Your task to perform on an android device: install app "Venmo" Image 0: 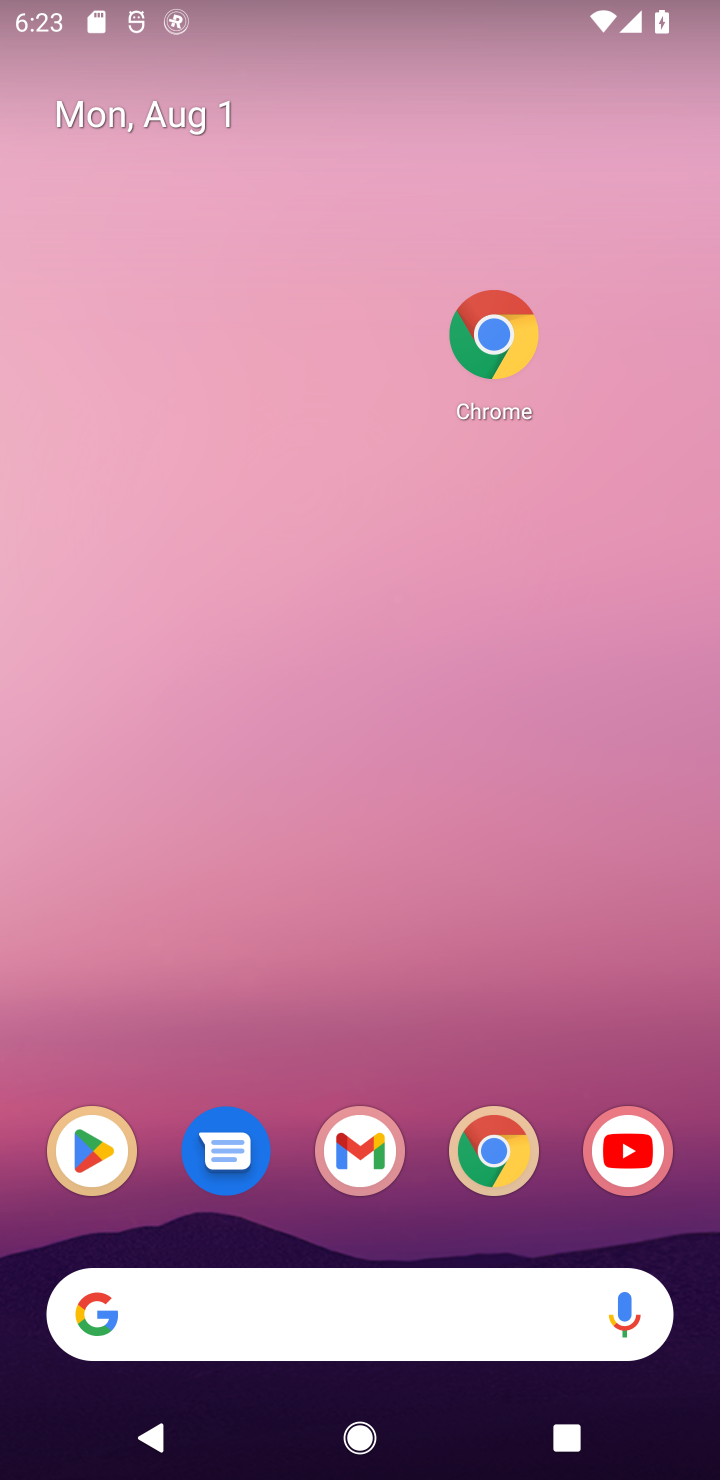
Step 0: click (96, 1152)
Your task to perform on an android device: install app "Venmo" Image 1: 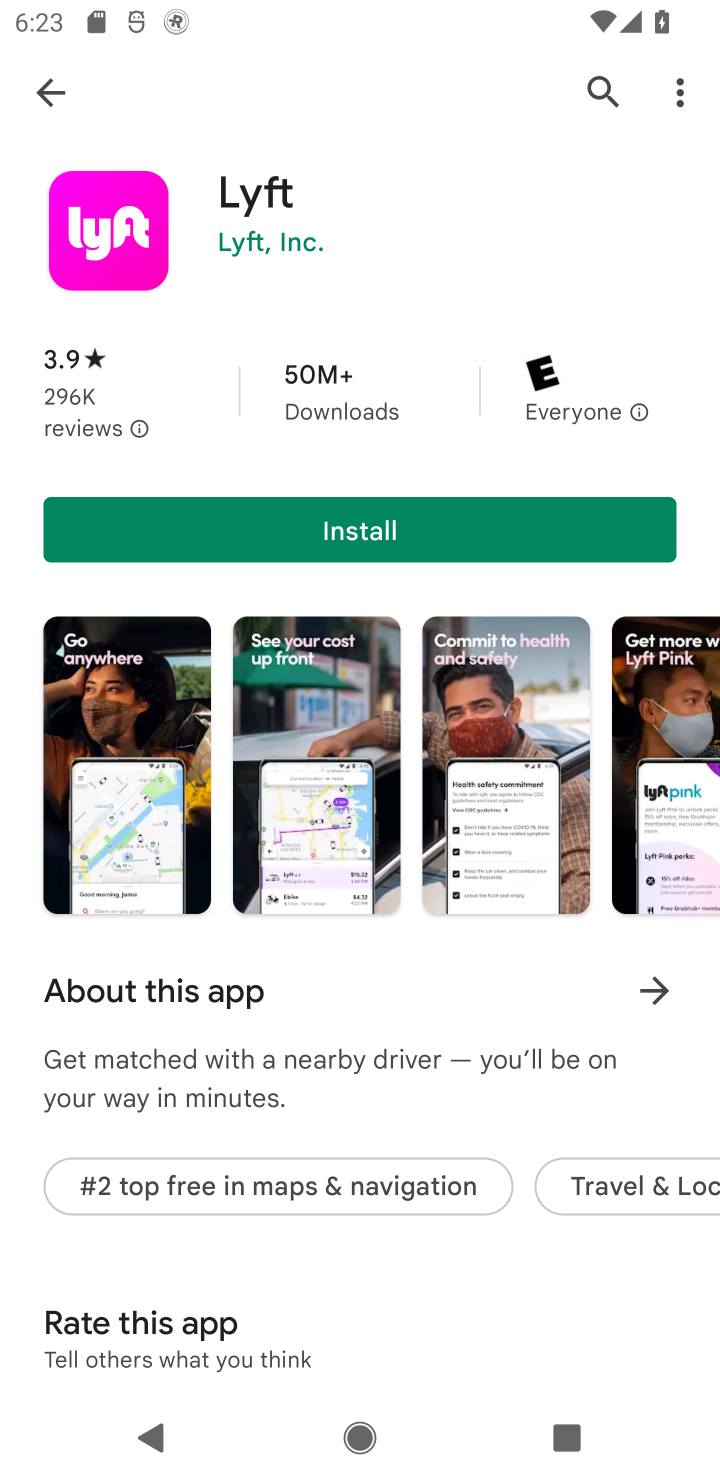
Step 1: click (613, 78)
Your task to perform on an android device: install app "Venmo" Image 2: 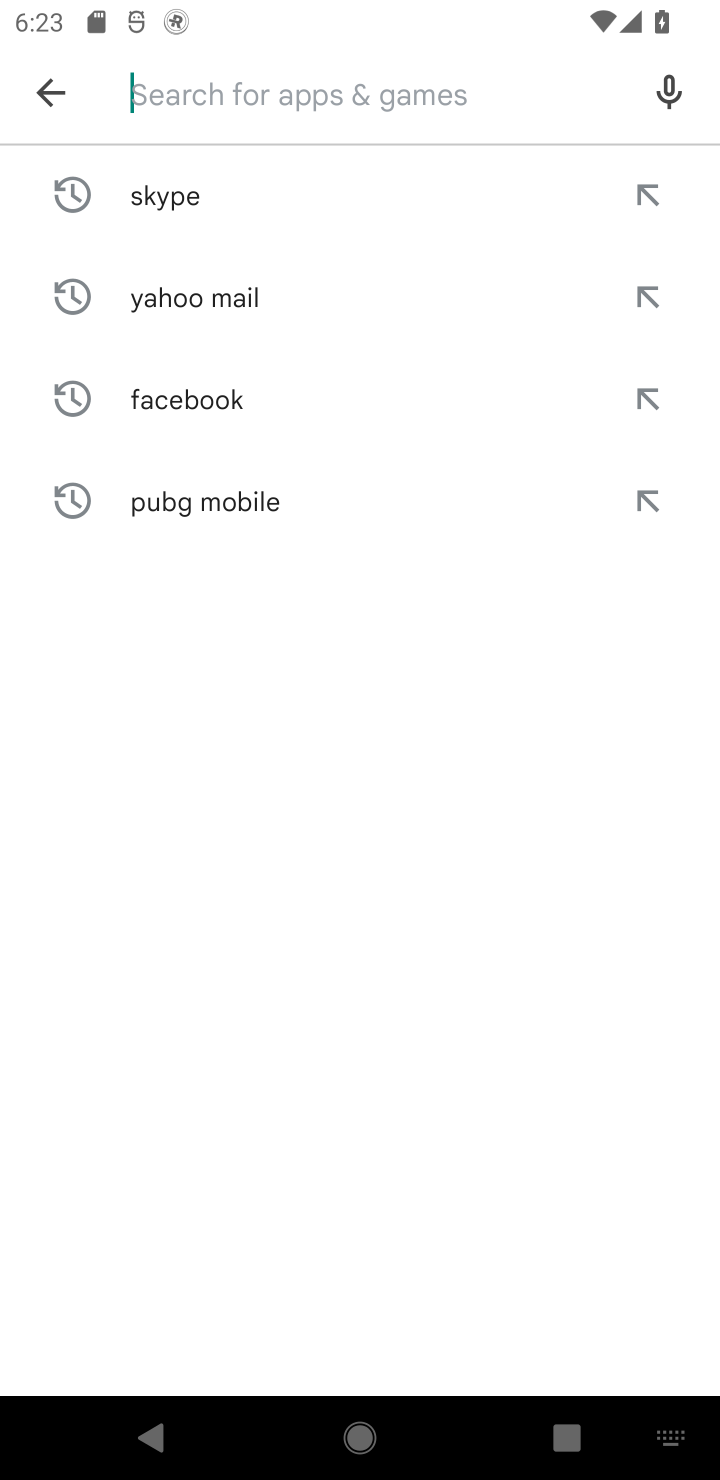
Step 2: type "Venmo"
Your task to perform on an android device: install app "Venmo" Image 3: 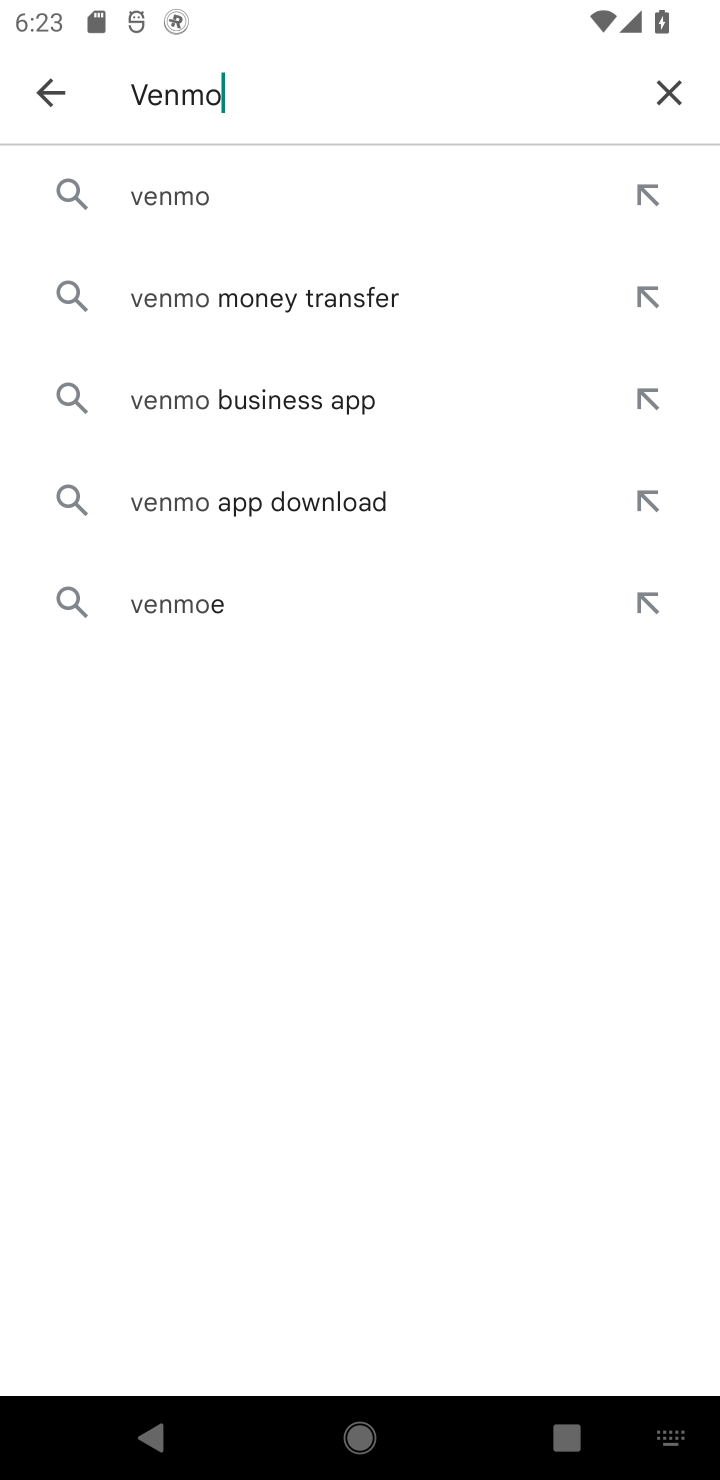
Step 3: click (199, 205)
Your task to perform on an android device: install app "Venmo" Image 4: 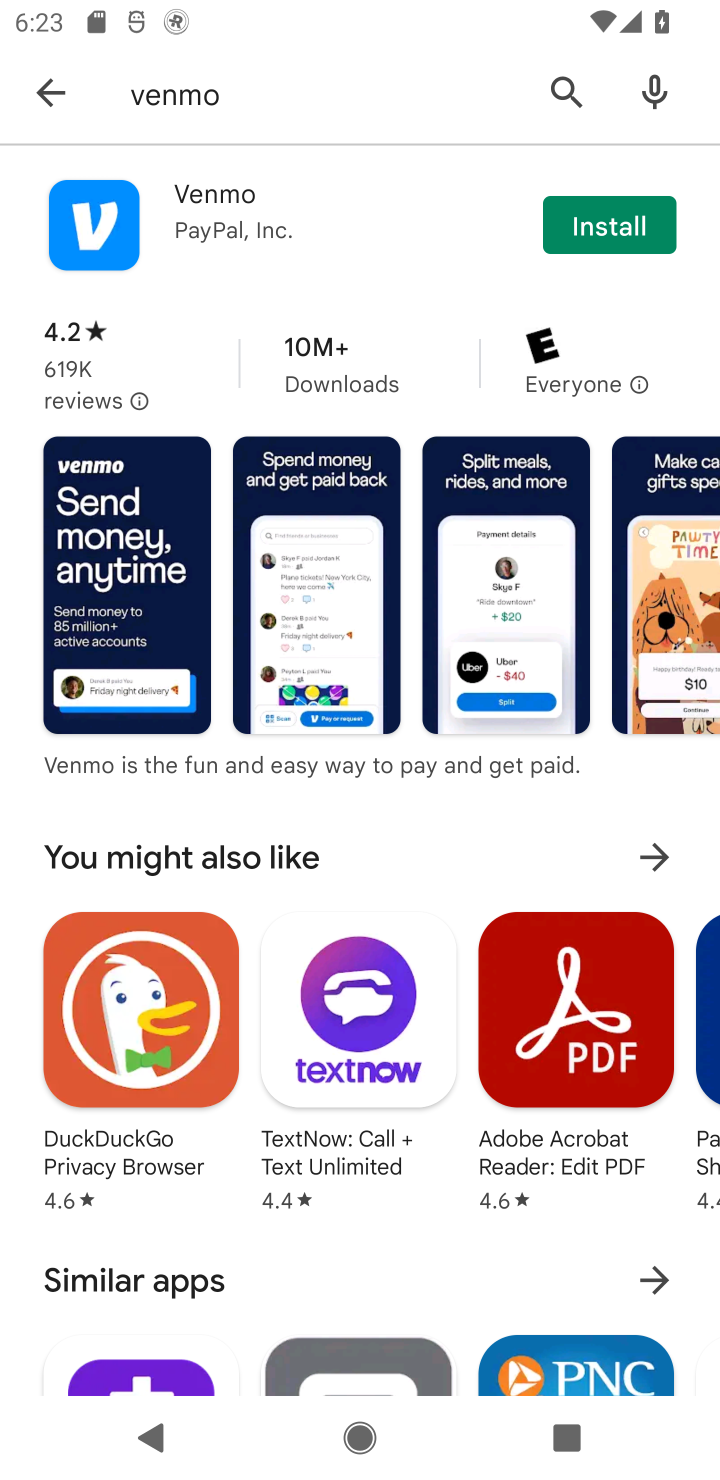
Step 4: click (617, 244)
Your task to perform on an android device: install app "Venmo" Image 5: 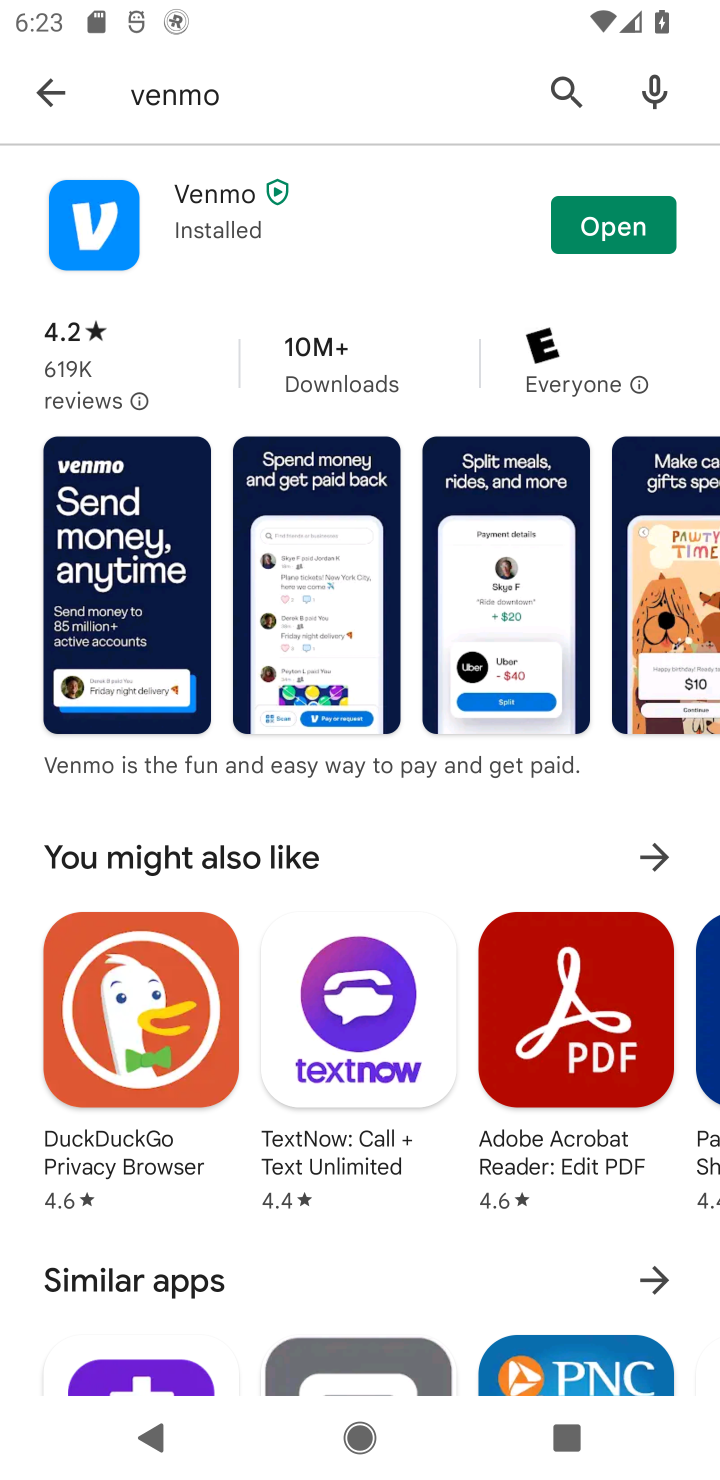
Step 5: task complete